Your task to perform on an android device: visit the assistant section in the google photos Image 0: 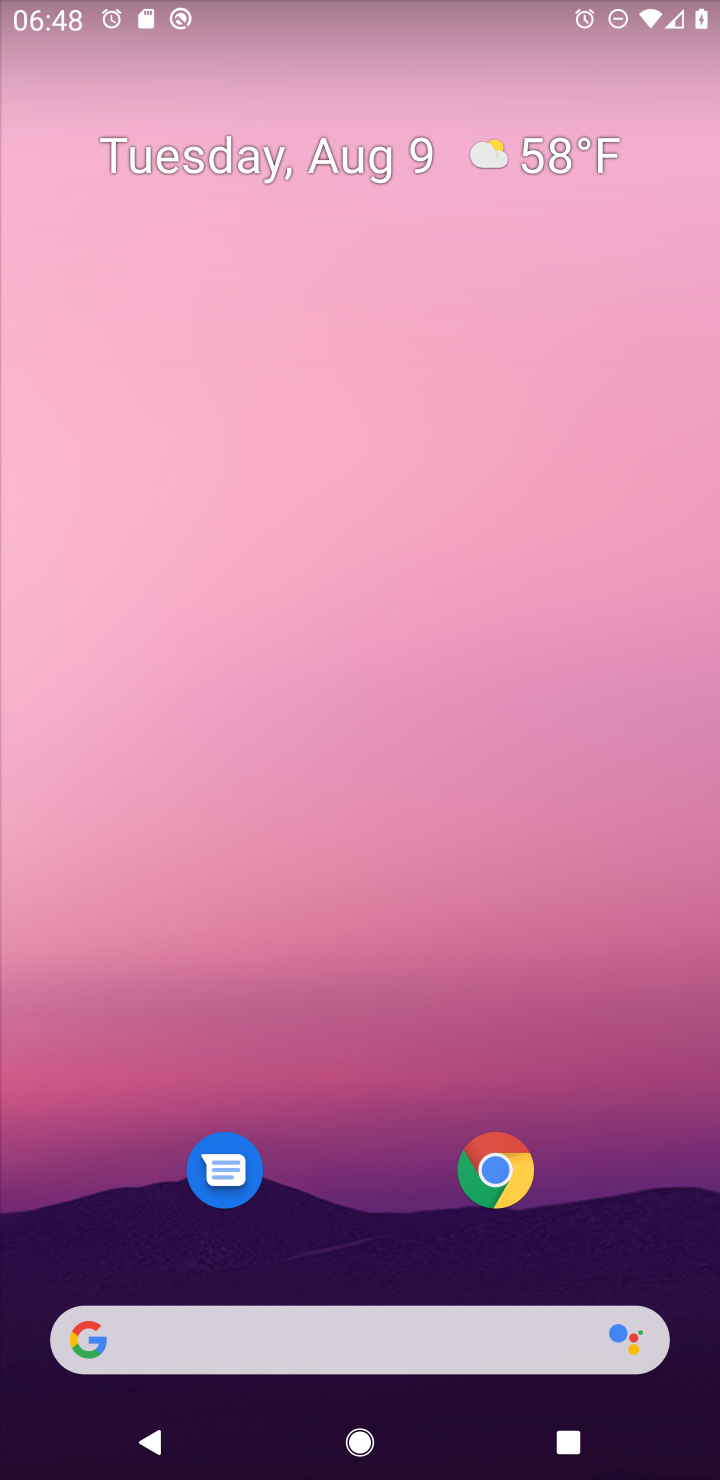
Step 0: press home button
Your task to perform on an android device: visit the assistant section in the google photos Image 1: 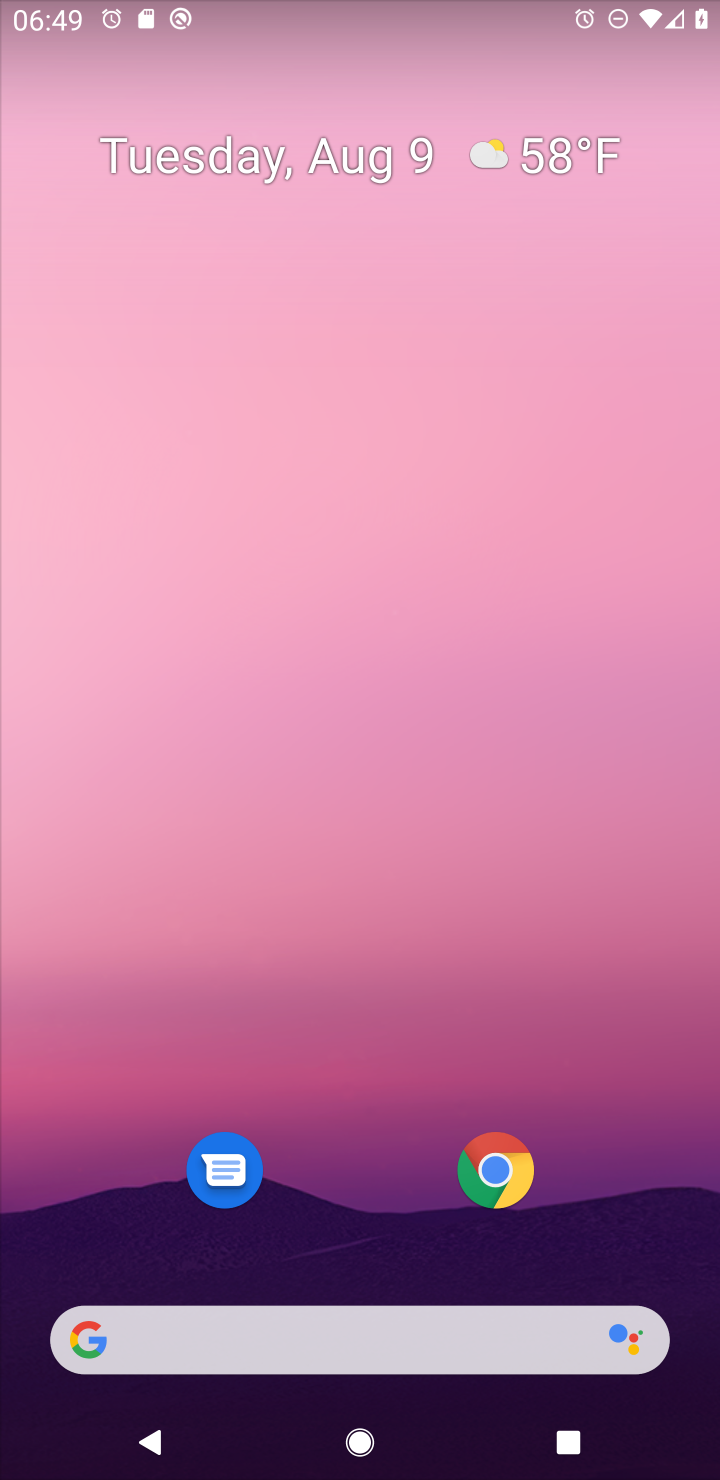
Step 1: drag from (340, 1251) to (394, 361)
Your task to perform on an android device: visit the assistant section in the google photos Image 2: 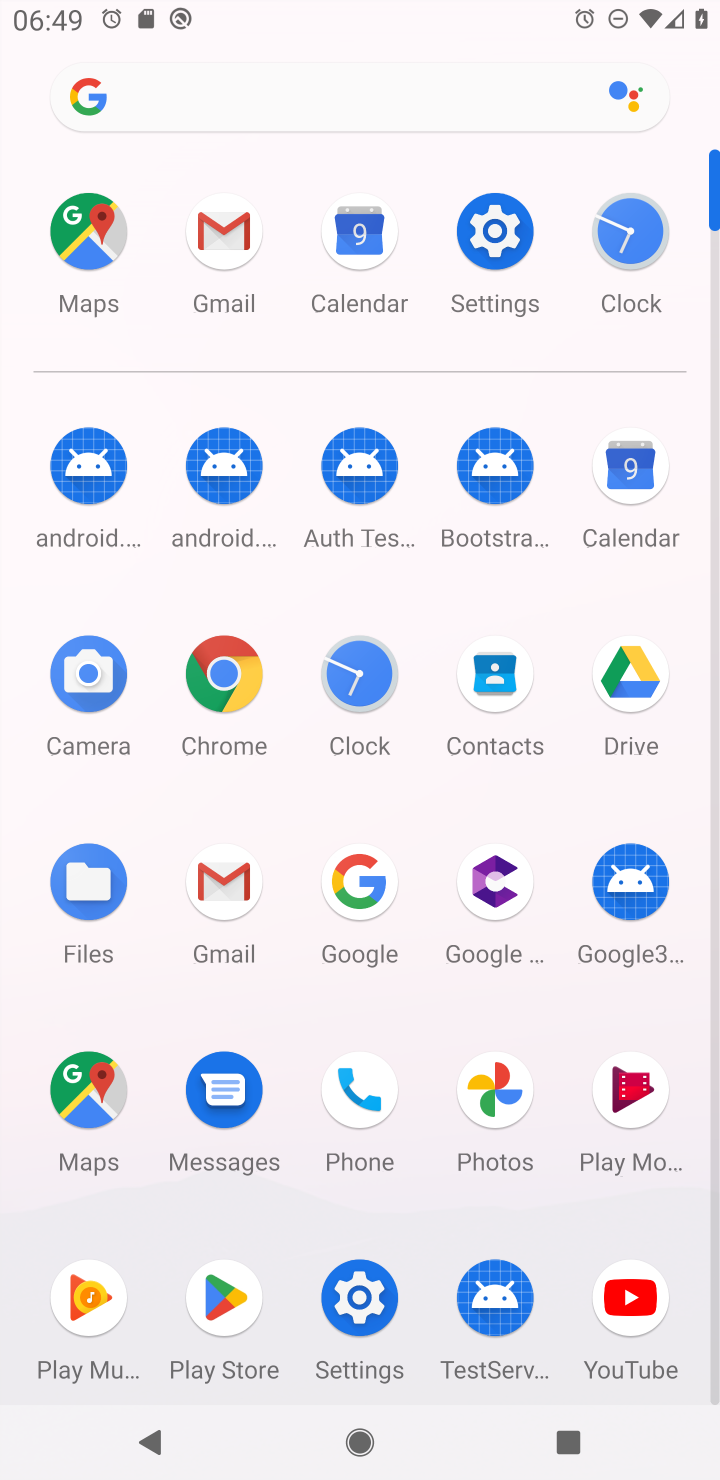
Step 2: click (490, 1094)
Your task to perform on an android device: visit the assistant section in the google photos Image 3: 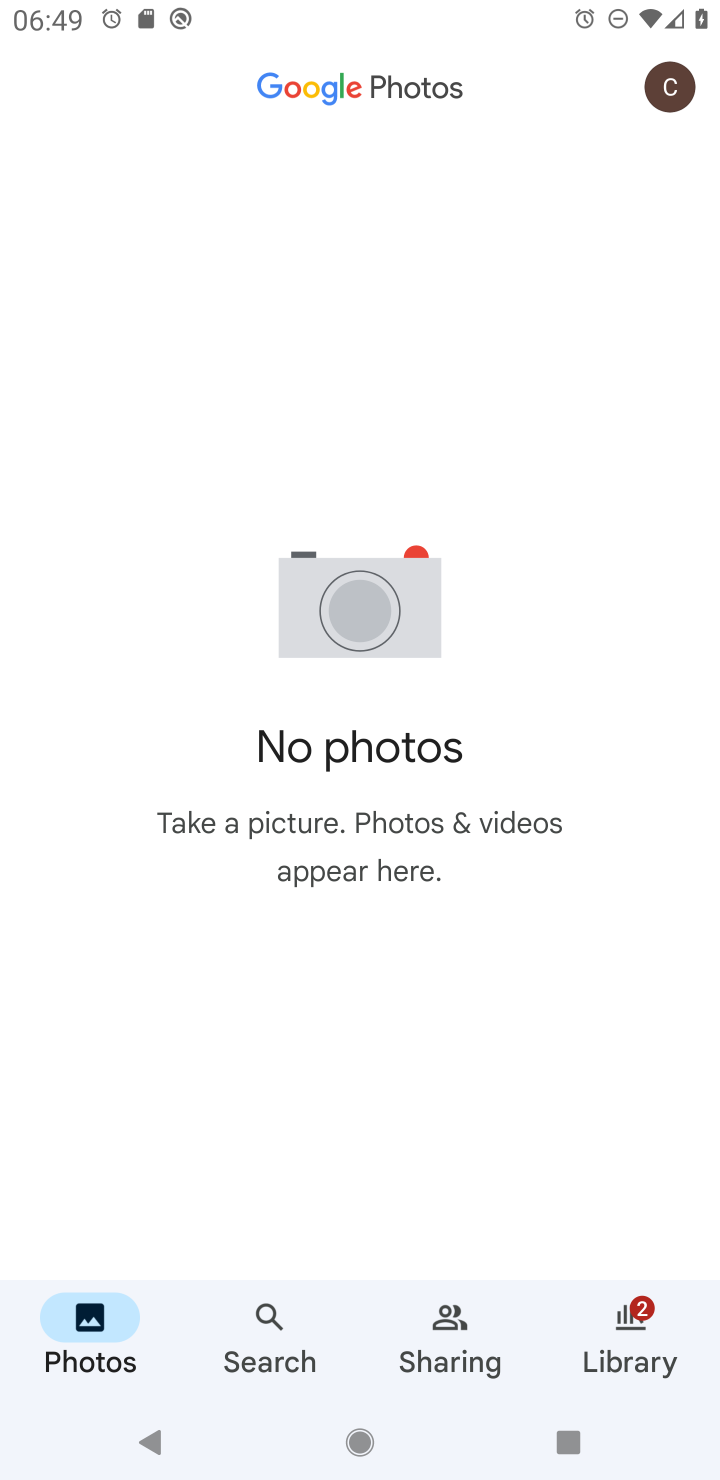
Step 3: task complete